Your task to perform on an android device: allow notifications from all sites in the chrome app Image 0: 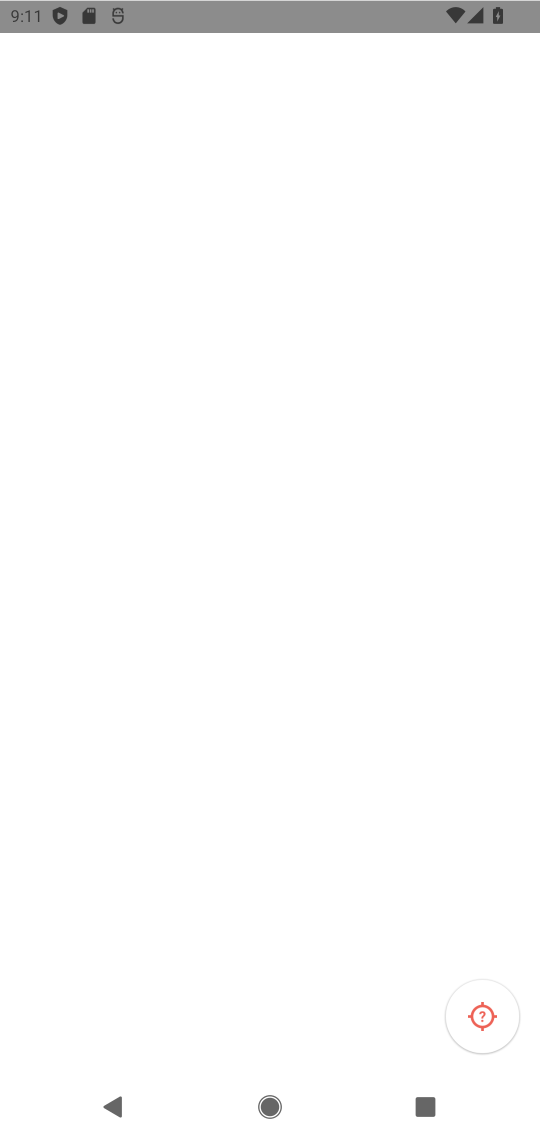
Step 0: press home button
Your task to perform on an android device: allow notifications from all sites in the chrome app Image 1: 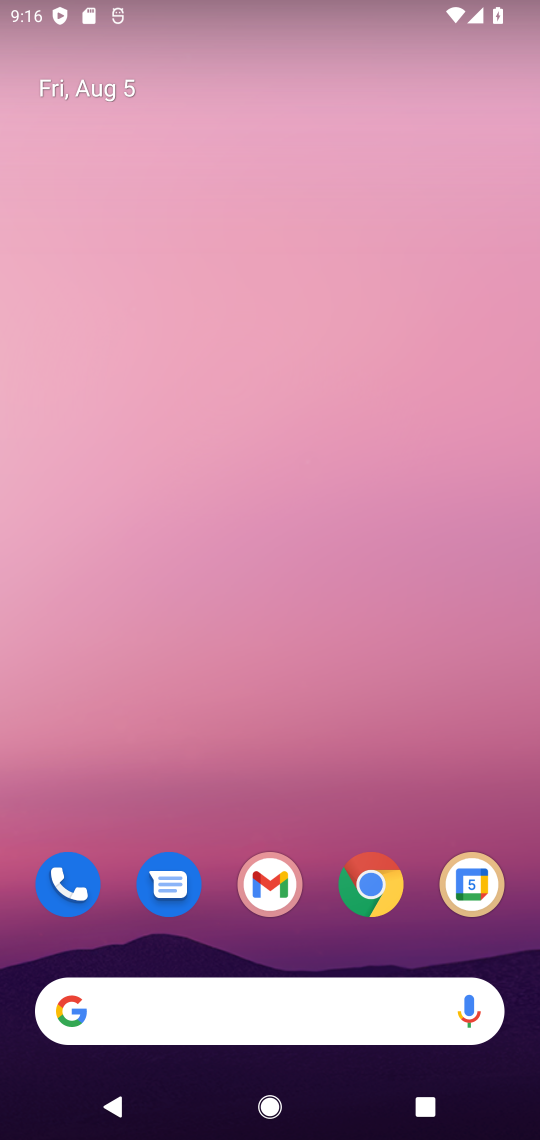
Step 1: drag from (333, 744) to (269, 334)
Your task to perform on an android device: allow notifications from all sites in the chrome app Image 2: 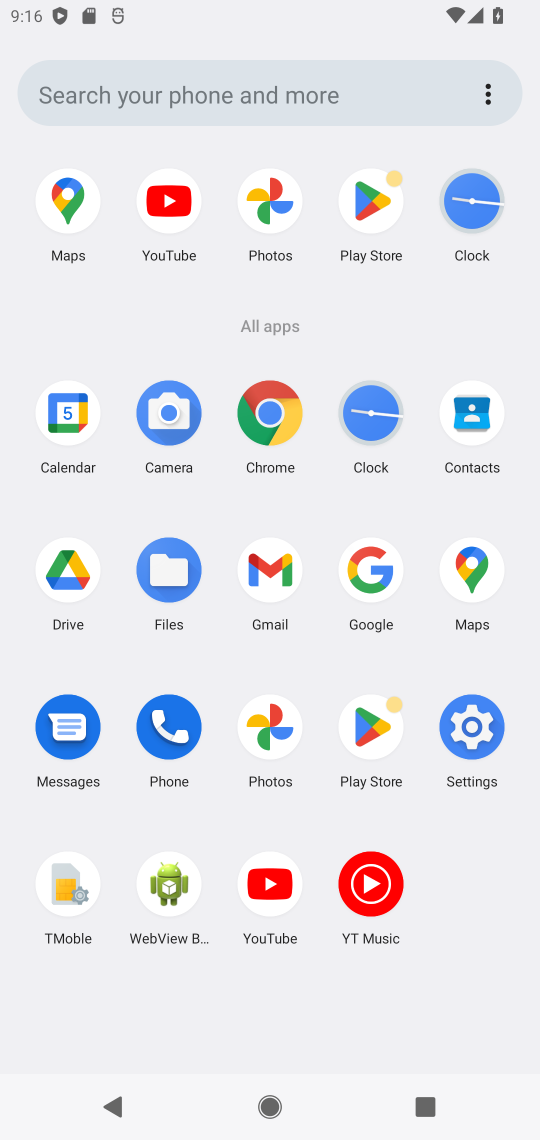
Step 2: click (258, 430)
Your task to perform on an android device: allow notifications from all sites in the chrome app Image 3: 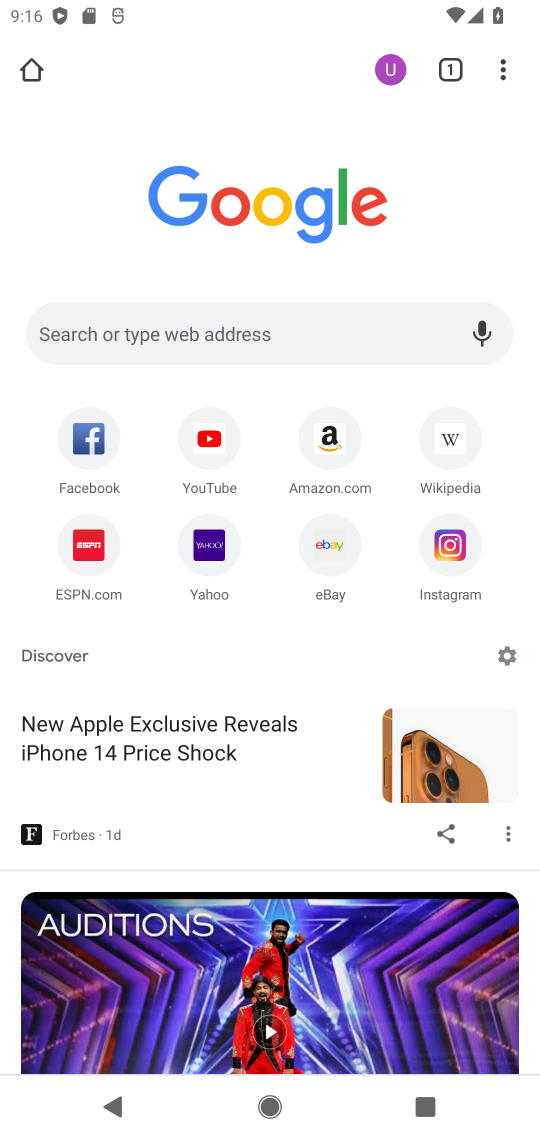
Step 3: task complete